Your task to perform on an android device: turn pop-ups on in chrome Image 0: 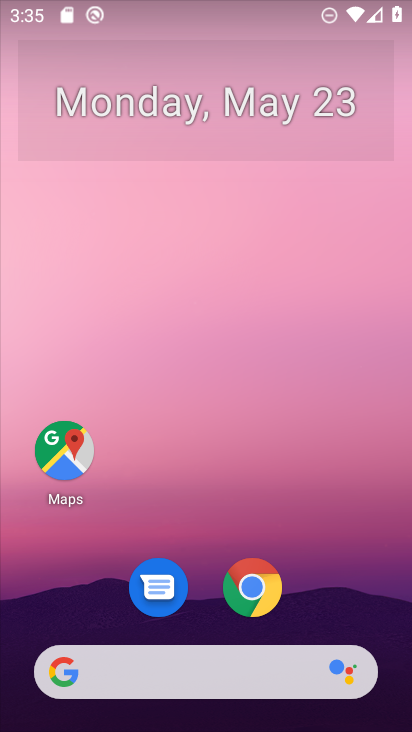
Step 0: drag from (221, 566) to (240, 124)
Your task to perform on an android device: turn pop-ups on in chrome Image 1: 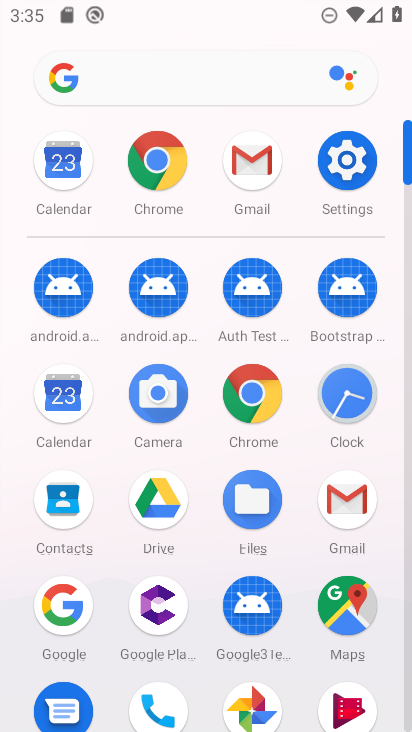
Step 1: click (250, 394)
Your task to perform on an android device: turn pop-ups on in chrome Image 2: 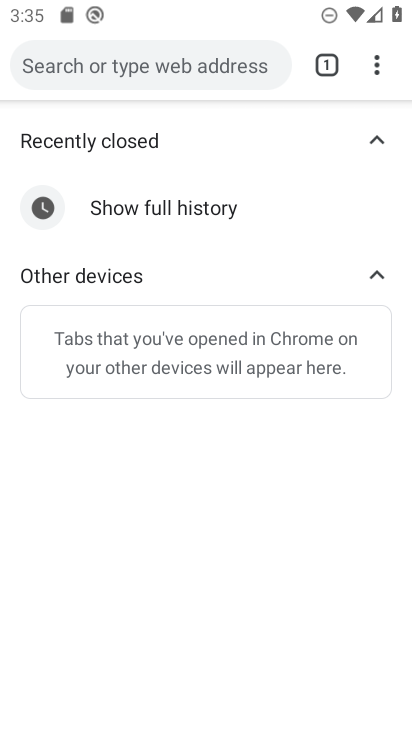
Step 2: click (378, 79)
Your task to perform on an android device: turn pop-ups on in chrome Image 3: 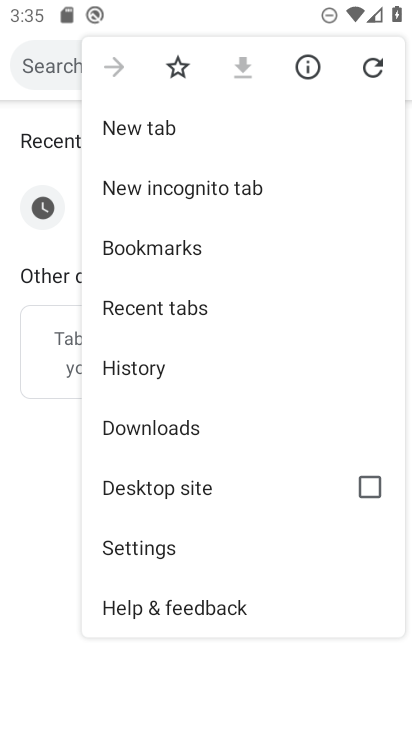
Step 3: click (158, 551)
Your task to perform on an android device: turn pop-ups on in chrome Image 4: 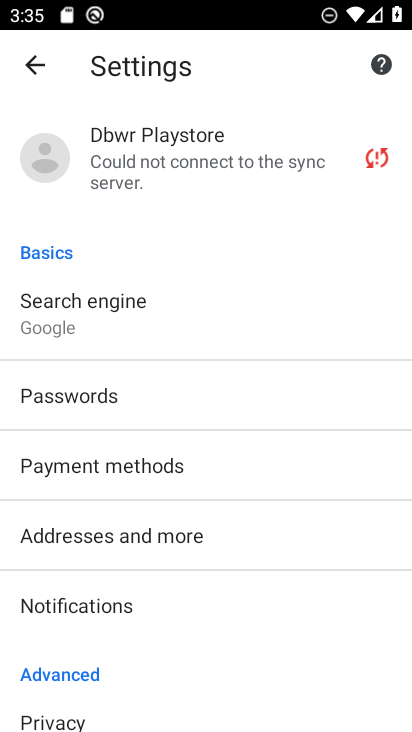
Step 4: drag from (160, 536) to (195, 110)
Your task to perform on an android device: turn pop-ups on in chrome Image 5: 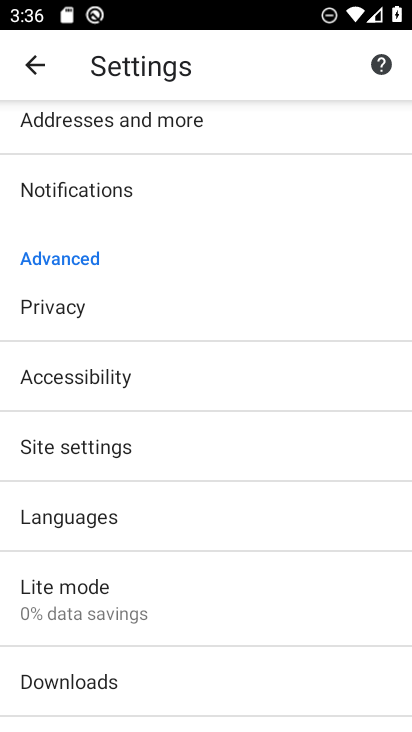
Step 5: drag from (89, 587) to (119, 284)
Your task to perform on an android device: turn pop-ups on in chrome Image 6: 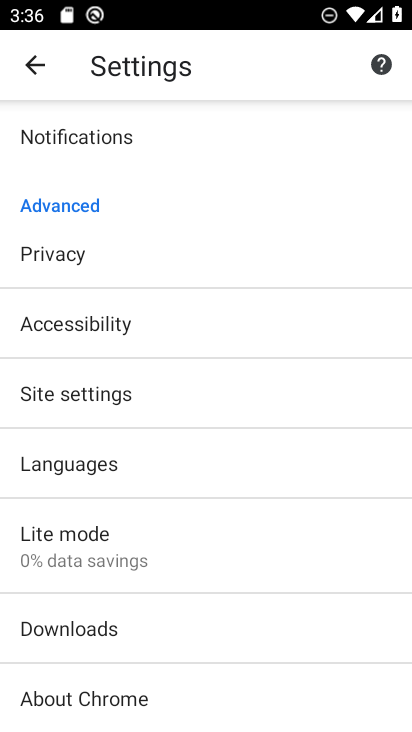
Step 6: click (96, 393)
Your task to perform on an android device: turn pop-ups on in chrome Image 7: 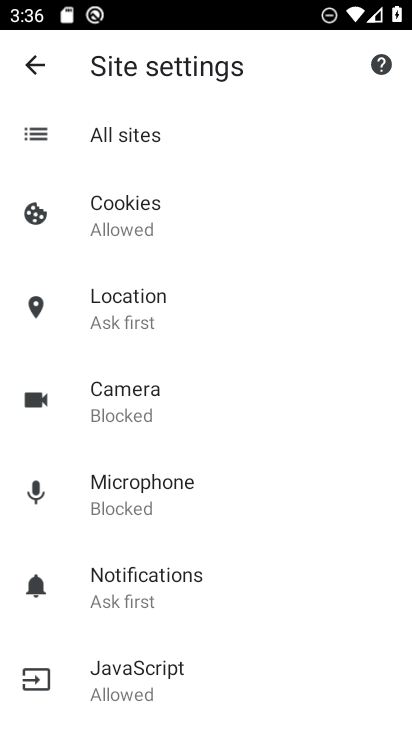
Step 7: drag from (148, 542) to (156, 260)
Your task to perform on an android device: turn pop-ups on in chrome Image 8: 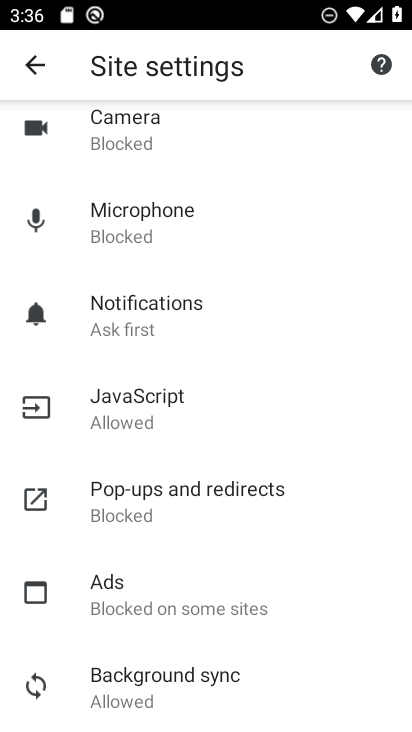
Step 8: click (151, 508)
Your task to perform on an android device: turn pop-ups on in chrome Image 9: 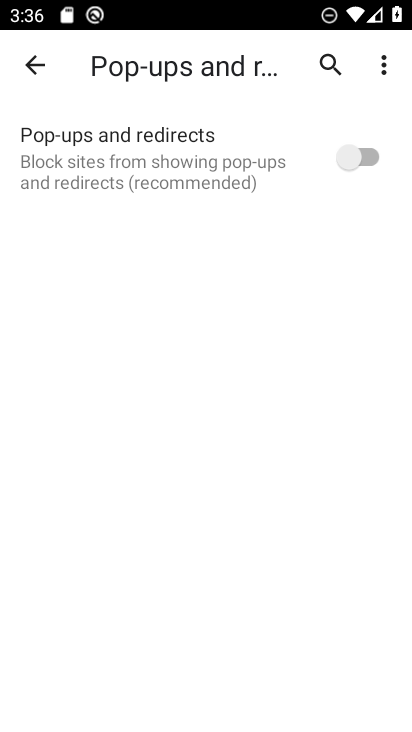
Step 9: click (356, 155)
Your task to perform on an android device: turn pop-ups on in chrome Image 10: 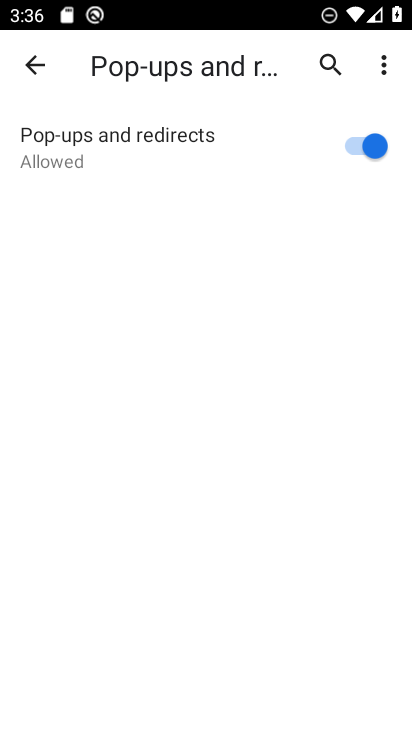
Step 10: task complete